Your task to perform on an android device: Open Youtube and go to the subscriptions tab Image 0: 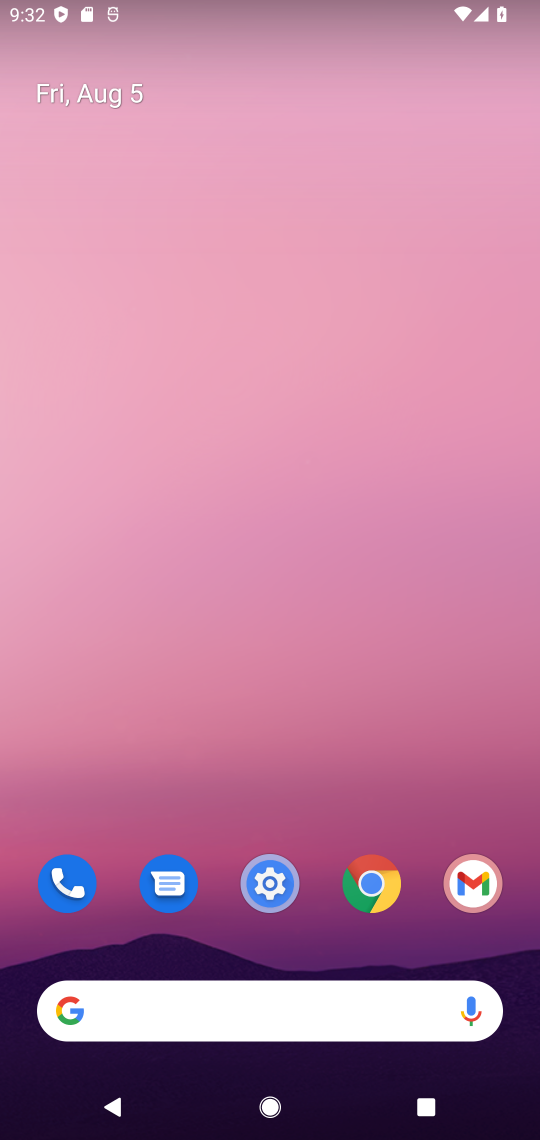
Step 0: drag from (273, 707) to (357, 8)
Your task to perform on an android device: Open Youtube and go to the subscriptions tab Image 1: 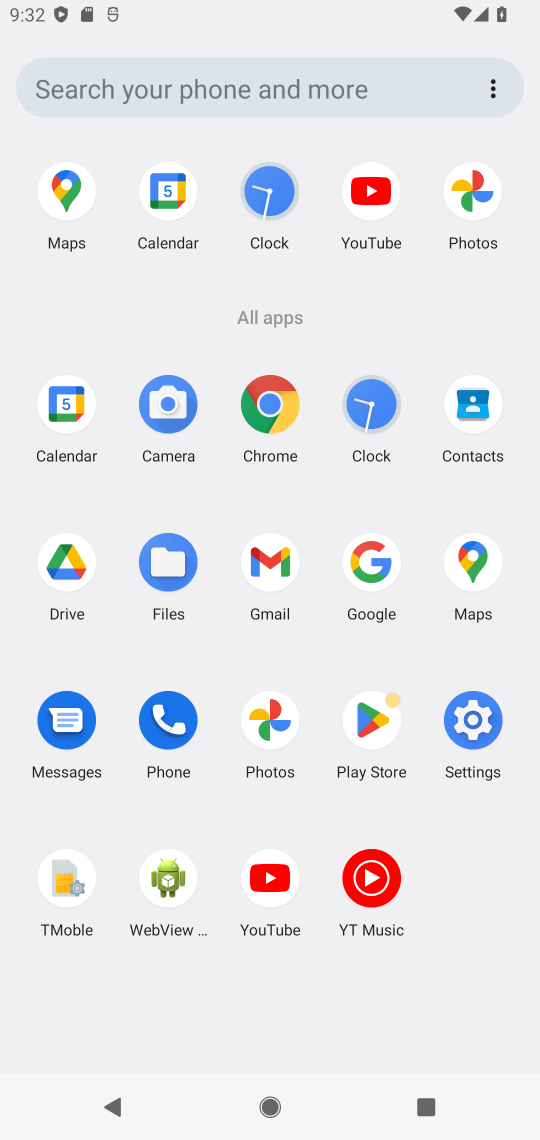
Step 1: click (375, 196)
Your task to perform on an android device: Open Youtube and go to the subscriptions tab Image 2: 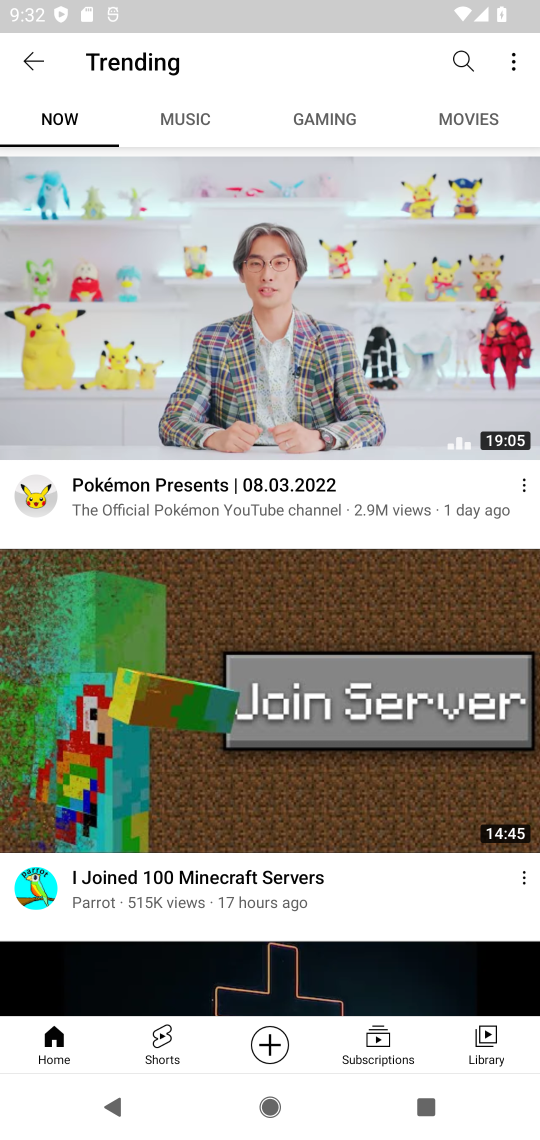
Step 2: click (401, 1055)
Your task to perform on an android device: Open Youtube and go to the subscriptions tab Image 3: 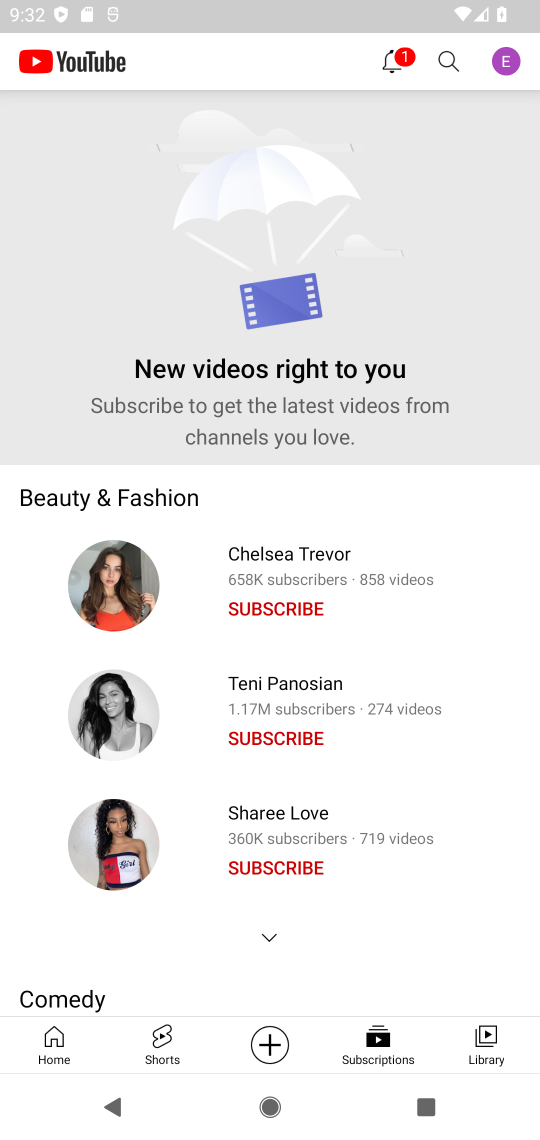
Step 3: task complete